Your task to perform on an android device: turn on priority inbox in the gmail app Image 0: 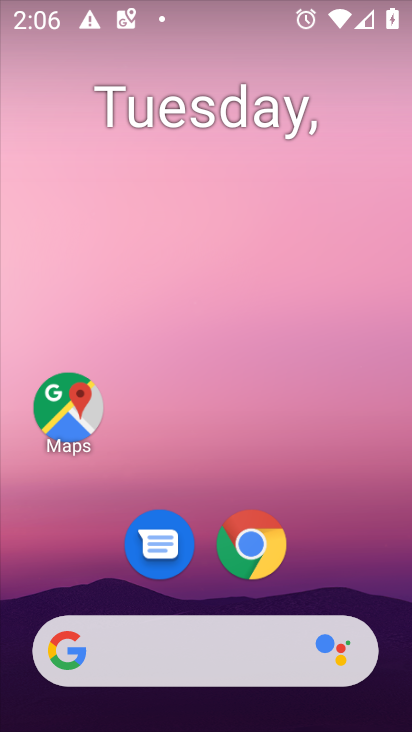
Step 0: drag from (294, 359) to (149, 706)
Your task to perform on an android device: turn on priority inbox in the gmail app Image 1: 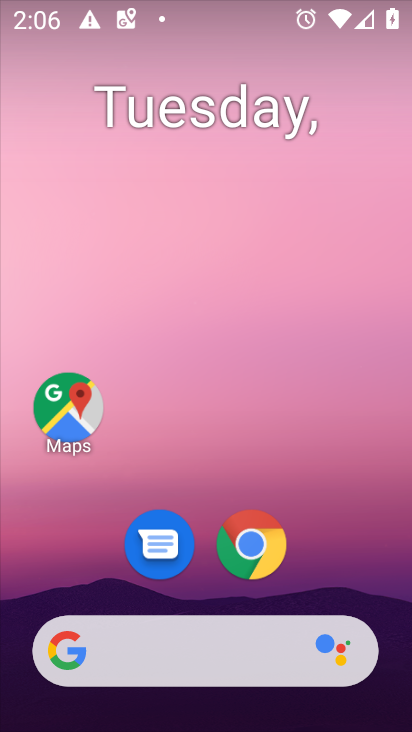
Step 1: drag from (353, 579) to (188, 29)
Your task to perform on an android device: turn on priority inbox in the gmail app Image 2: 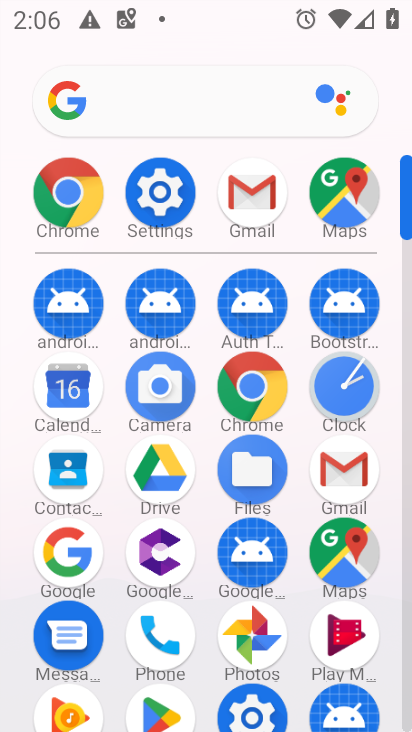
Step 2: click (342, 466)
Your task to perform on an android device: turn on priority inbox in the gmail app Image 3: 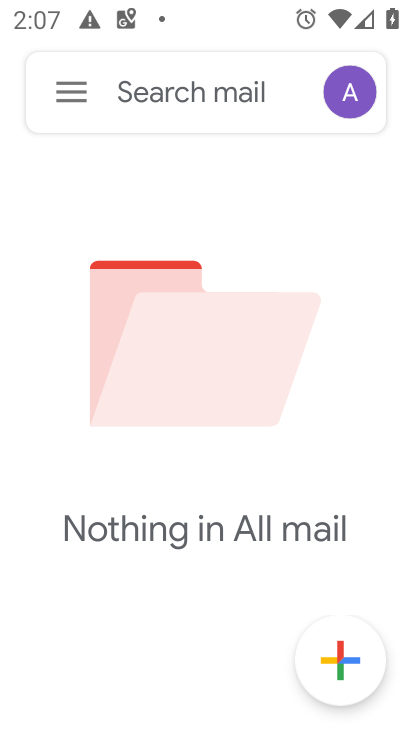
Step 3: click (74, 84)
Your task to perform on an android device: turn on priority inbox in the gmail app Image 4: 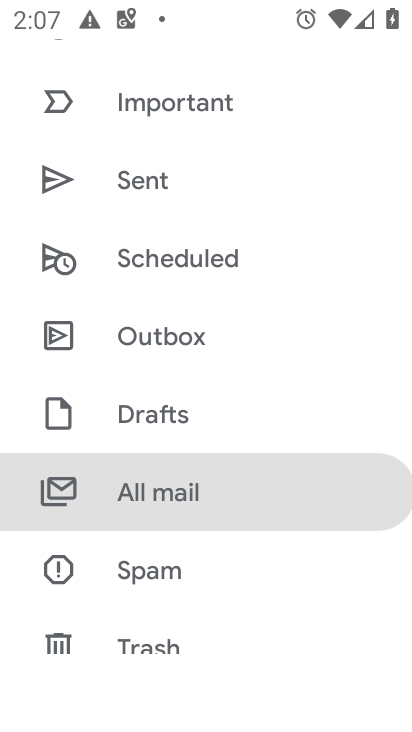
Step 4: drag from (170, 672) to (230, 108)
Your task to perform on an android device: turn on priority inbox in the gmail app Image 5: 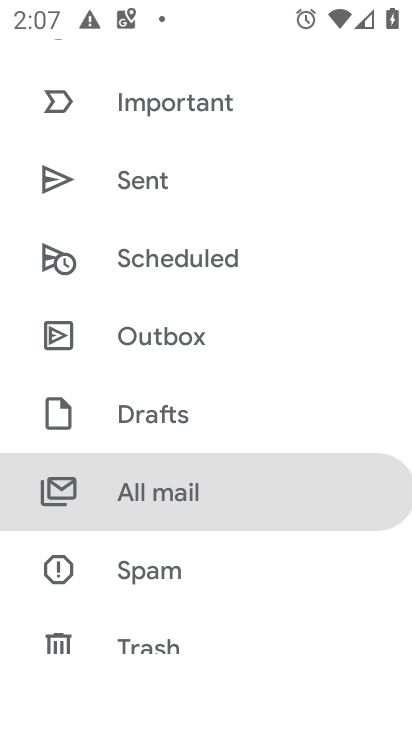
Step 5: drag from (197, 656) to (276, 123)
Your task to perform on an android device: turn on priority inbox in the gmail app Image 6: 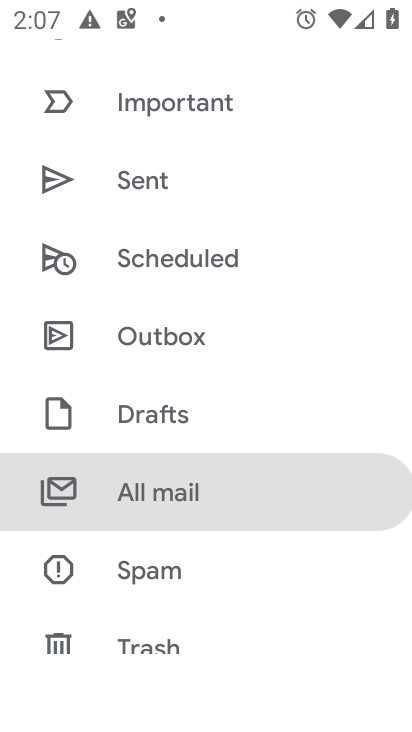
Step 6: click (244, 554)
Your task to perform on an android device: turn on priority inbox in the gmail app Image 7: 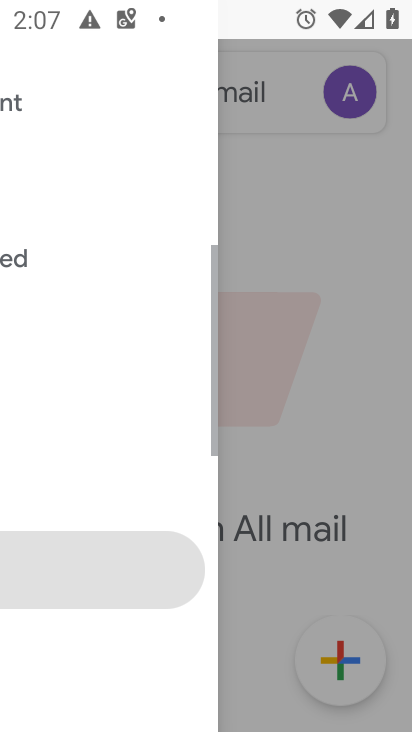
Step 7: drag from (161, 665) to (62, 49)
Your task to perform on an android device: turn on priority inbox in the gmail app Image 8: 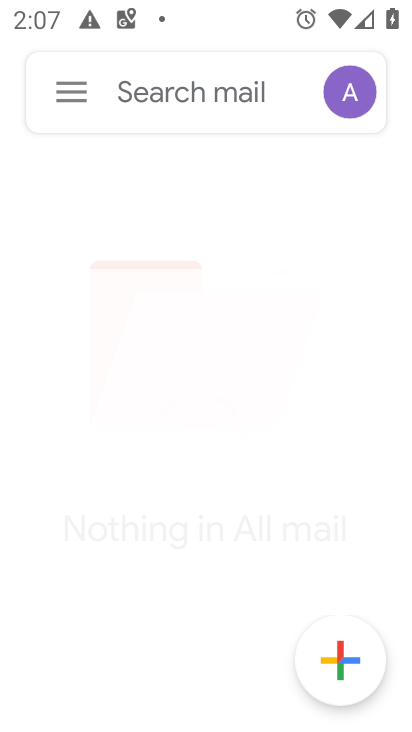
Step 8: drag from (97, 629) to (130, 323)
Your task to perform on an android device: turn on priority inbox in the gmail app Image 9: 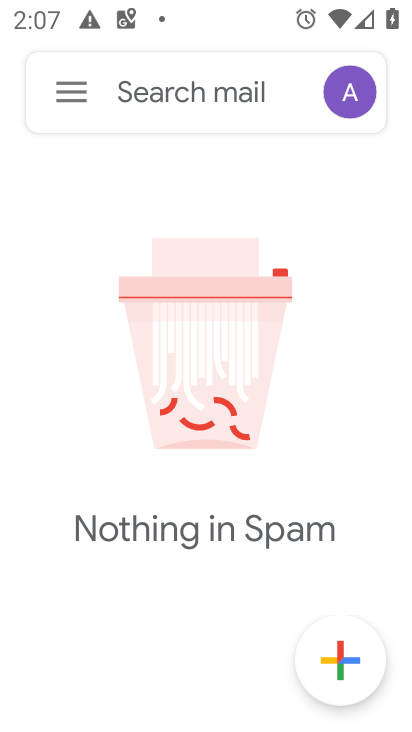
Step 9: click (75, 82)
Your task to perform on an android device: turn on priority inbox in the gmail app Image 10: 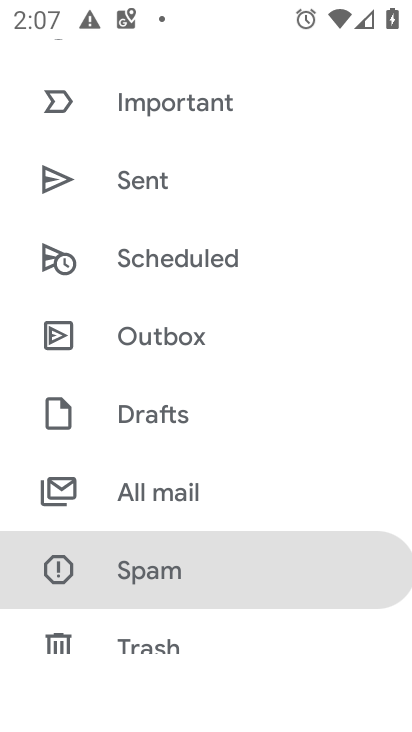
Step 10: drag from (164, 588) to (207, 58)
Your task to perform on an android device: turn on priority inbox in the gmail app Image 11: 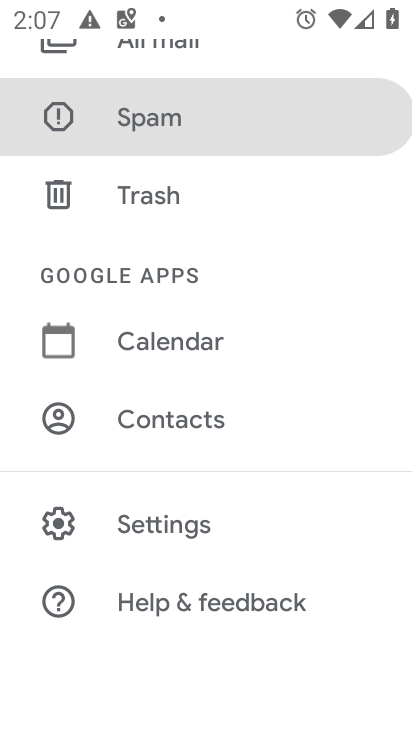
Step 11: click (143, 545)
Your task to perform on an android device: turn on priority inbox in the gmail app Image 12: 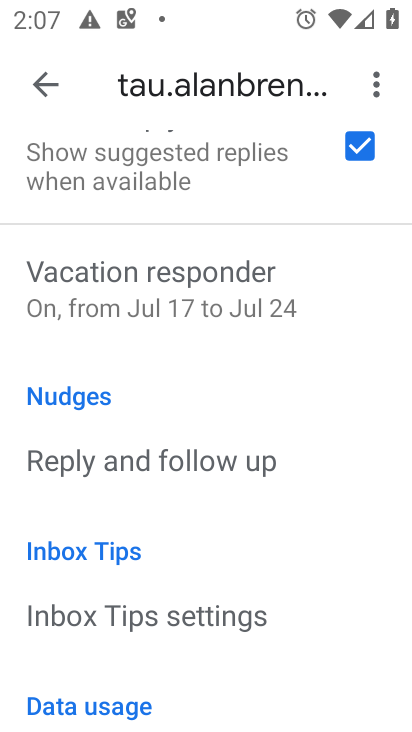
Step 12: click (49, 95)
Your task to perform on an android device: turn on priority inbox in the gmail app Image 13: 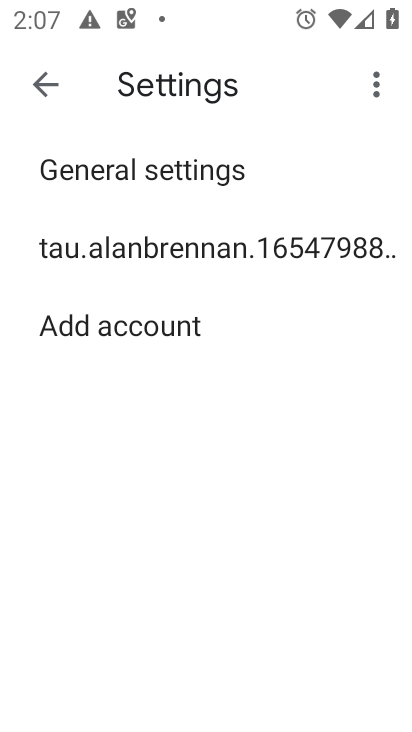
Step 13: click (197, 236)
Your task to perform on an android device: turn on priority inbox in the gmail app Image 14: 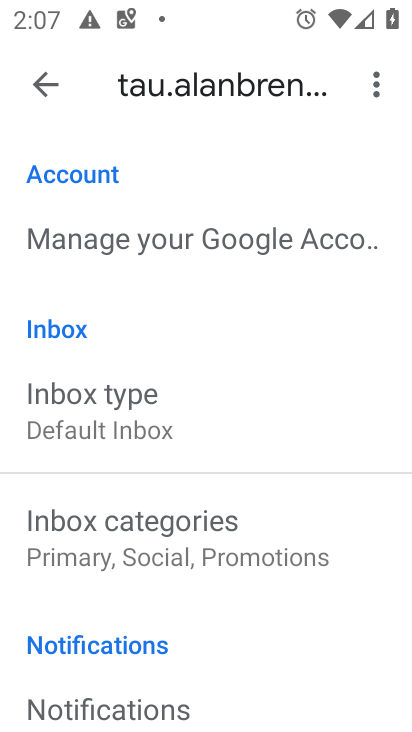
Step 14: click (129, 383)
Your task to perform on an android device: turn on priority inbox in the gmail app Image 15: 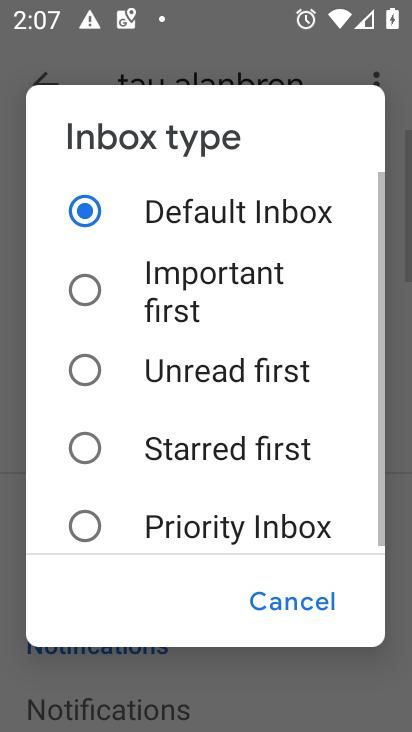
Step 15: task complete